Your task to perform on an android device: turn off data saver in the chrome app Image 0: 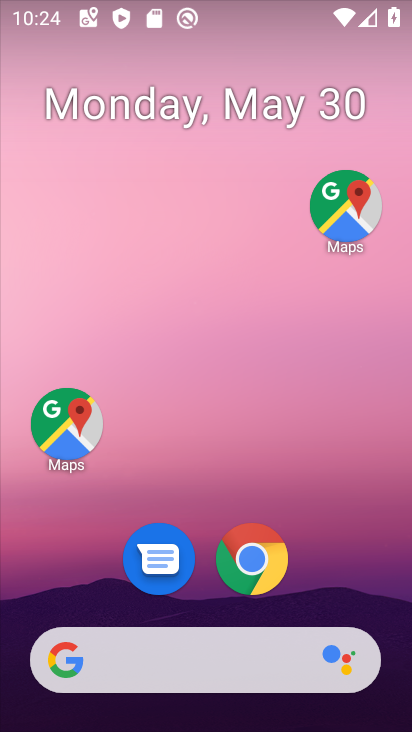
Step 0: click (253, 562)
Your task to perform on an android device: turn off data saver in the chrome app Image 1: 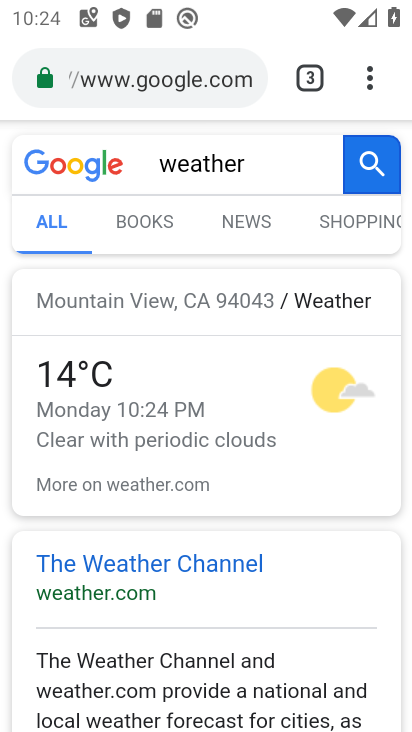
Step 1: drag from (376, 67) to (277, 608)
Your task to perform on an android device: turn off data saver in the chrome app Image 2: 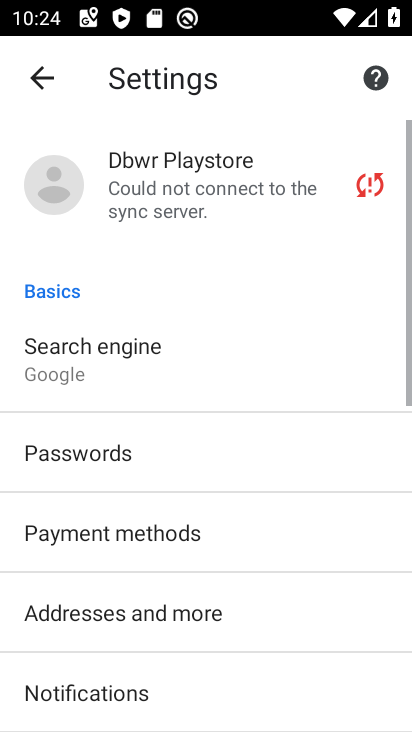
Step 2: drag from (279, 580) to (310, 60)
Your task to perform on an android device: turn off data saver in the chrome app Image 3: 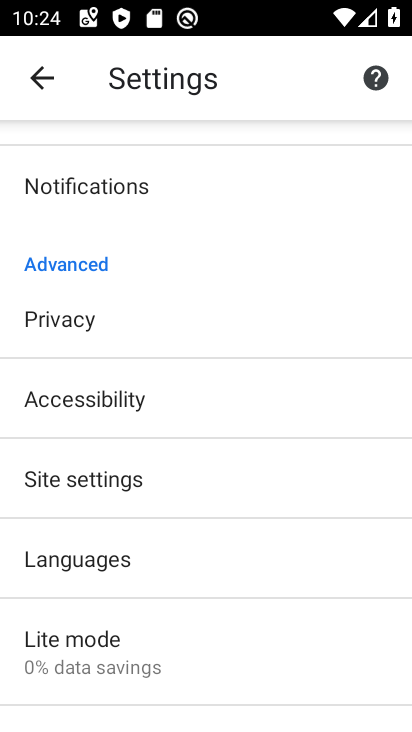
Step 3: drag from (138, 555) to (212, 336)
Your task to perform on an android device: turn off data saver in the chrome app Image 4: 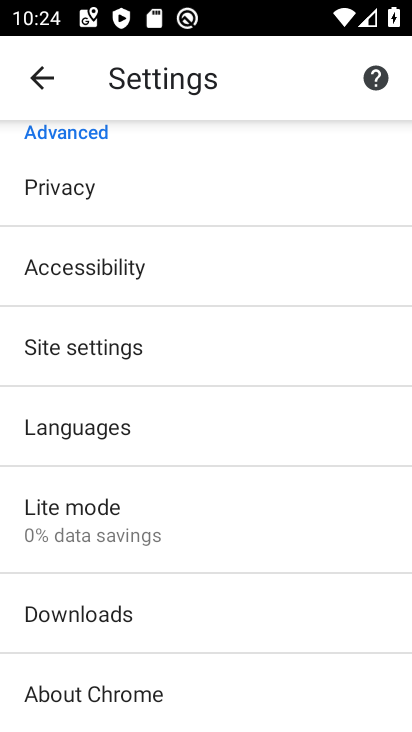
Step 4: click (148, 499)
Your task to perform on an android device: turn off data saver in the chrome app Image 5: 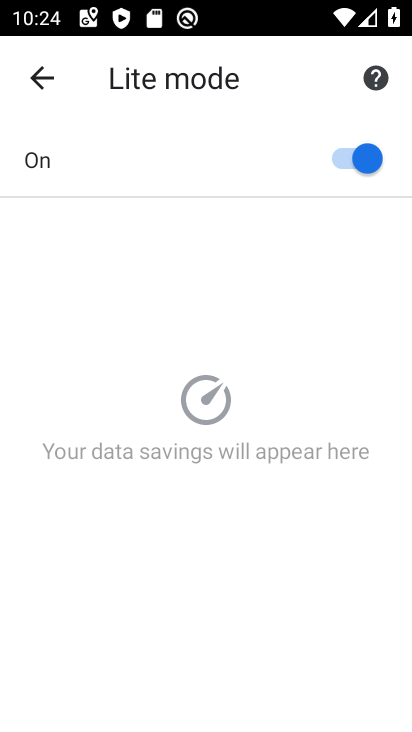
Step 5: click (367, 163)
Your task to perform on an android device: turn off data saver in the chrome app Image 6: 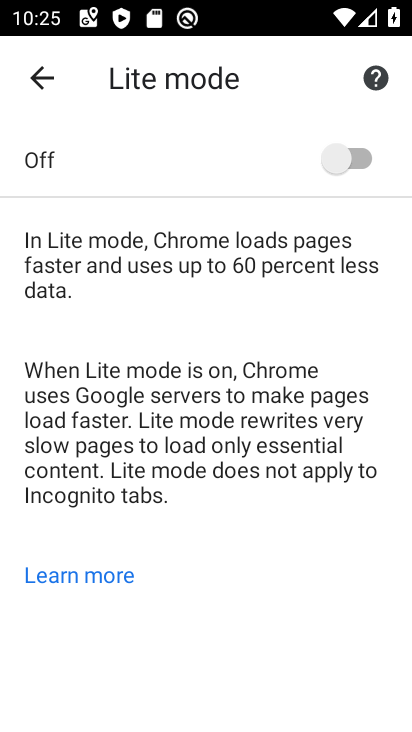
Step 6: task complete